Your task to perform on an android device: move an email to a new category in the gmail app Image 0: 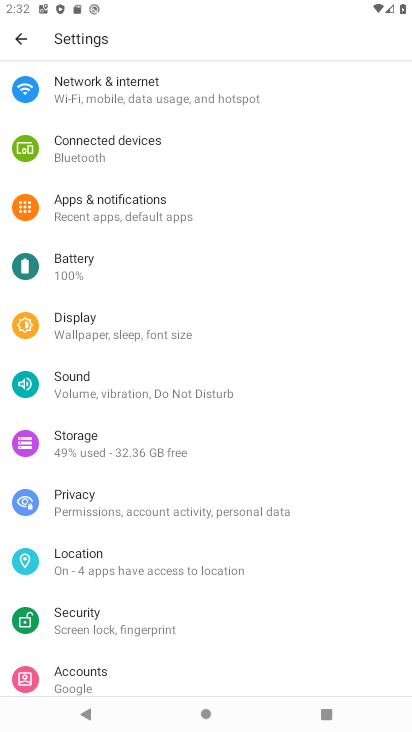
Step 0: task complete